Your task to perform on an android device: Open Google Chrome and click the shortcut for Amazon.com Image 0: 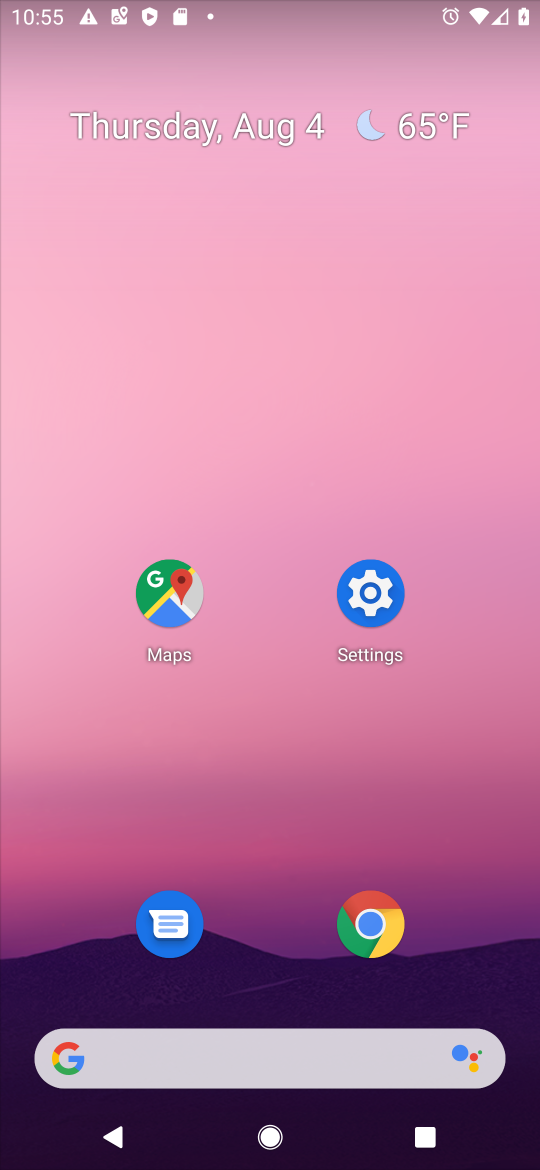
Step 0: click (385, 912)
Your task to perform on an android device: Open Google Chrome and click the shortcut for Amazon.com Image 1: 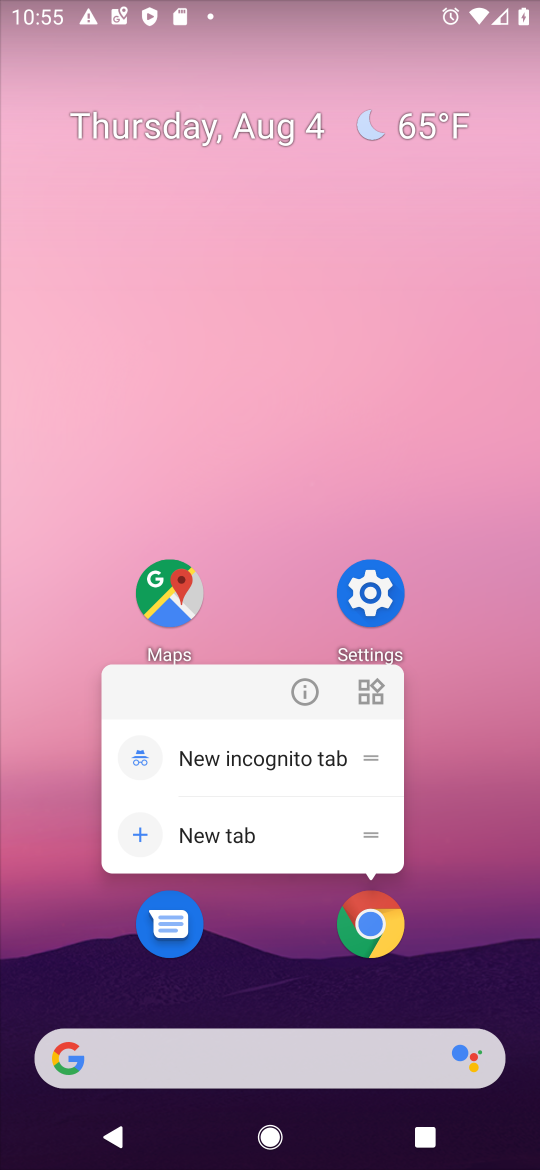
Step 1: click (372, 917)
Your task to perform on an android device: Open Google Chrome and click the shortcut for Amazon.com Image 2: 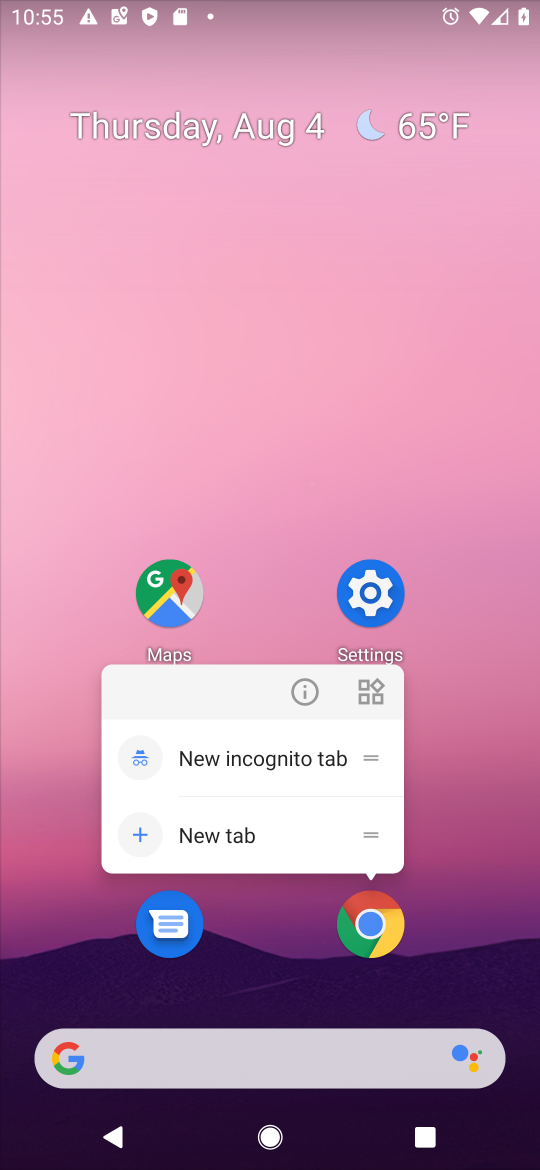
Step 2: click (372, 917)
Your task to perform on an android device: Open Google Chrome and click the shortcut for Amazon.com Image 3: 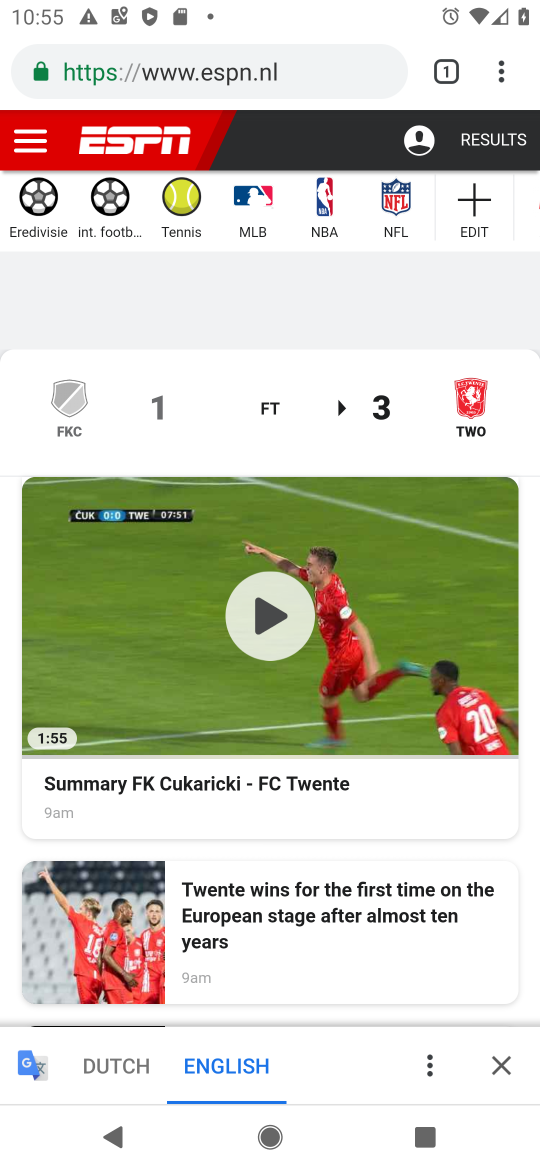
Step 3: drag from (502, 74) to (235, 143)
Your task to perform on an android device: Open Google Chrome and click the shortcut for Amazon.com Image 4: 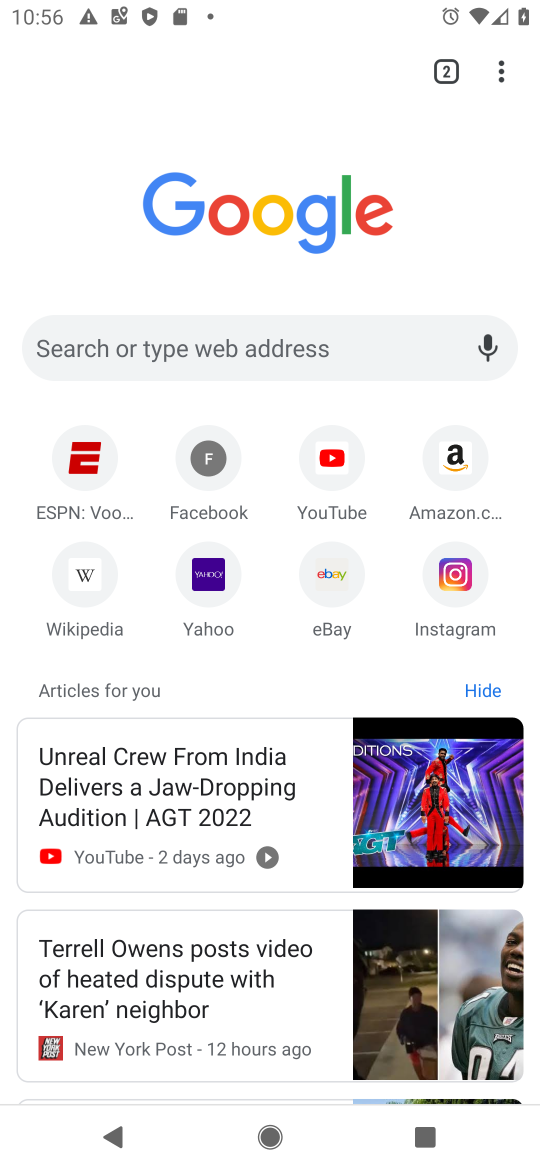
Step 4: click (468, 470)
Your task to perform on an android device: Open Google Chrome and click the shortcut for Amazon.com Image 5: 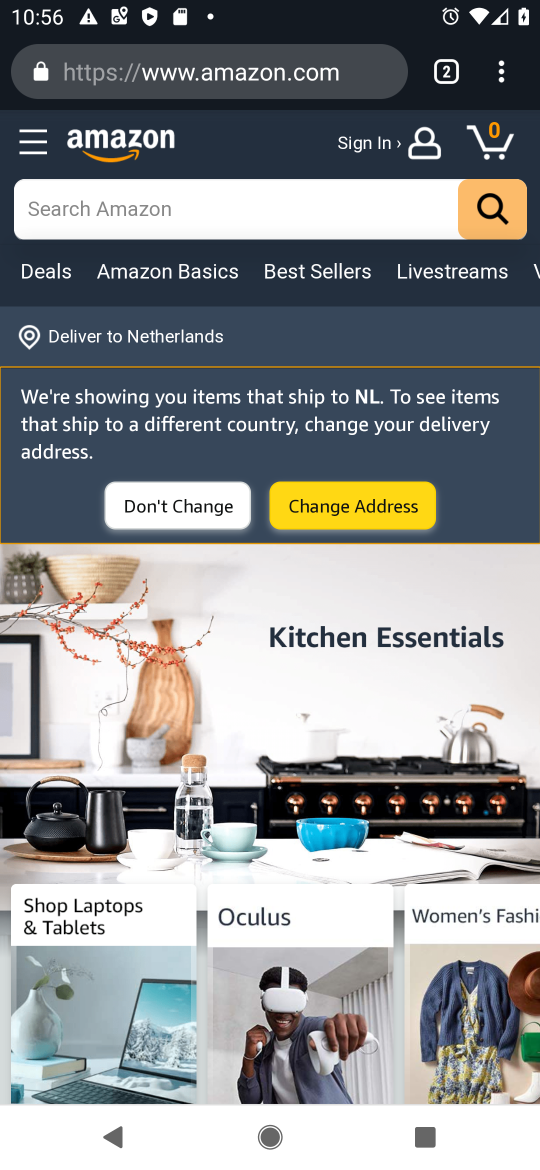
Step 5: task complete